Your task to perform on an android device: Turn off the flashlight Image 0: 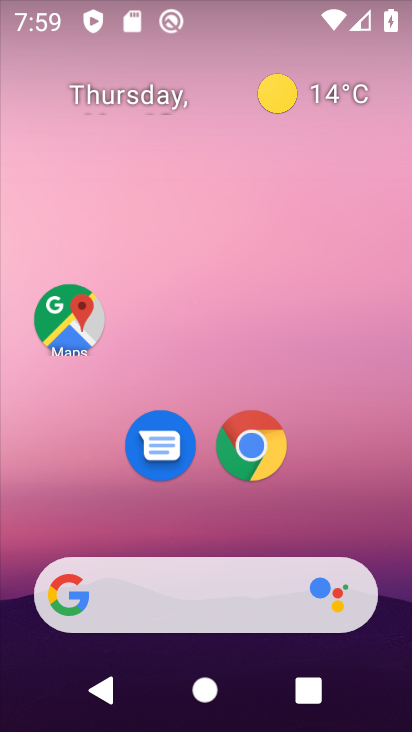
Step 0: drag from (226, 700) to (229, 119)
Your task to perform on an android device: Turn off the flashlight Image 1: 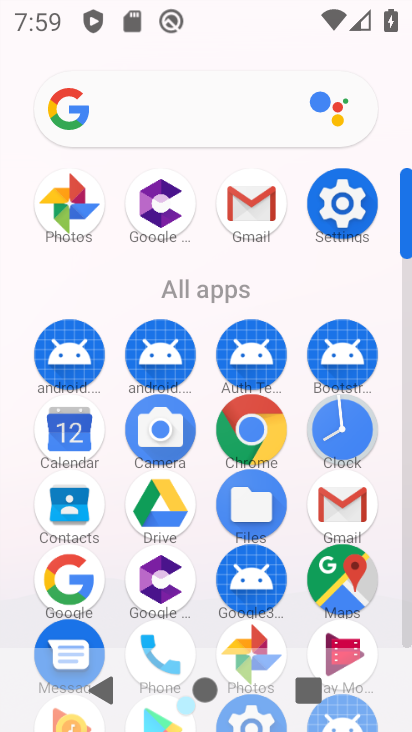
Step 1: click (344, 203)
Your task to perform on an android device: Turn off the flashlight Image 2: 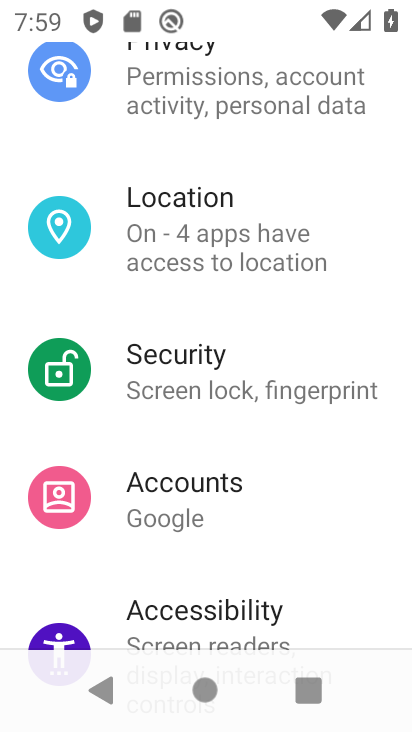
Step 2: task complete